Your task to perform on an android device: check out phone information Image 0: 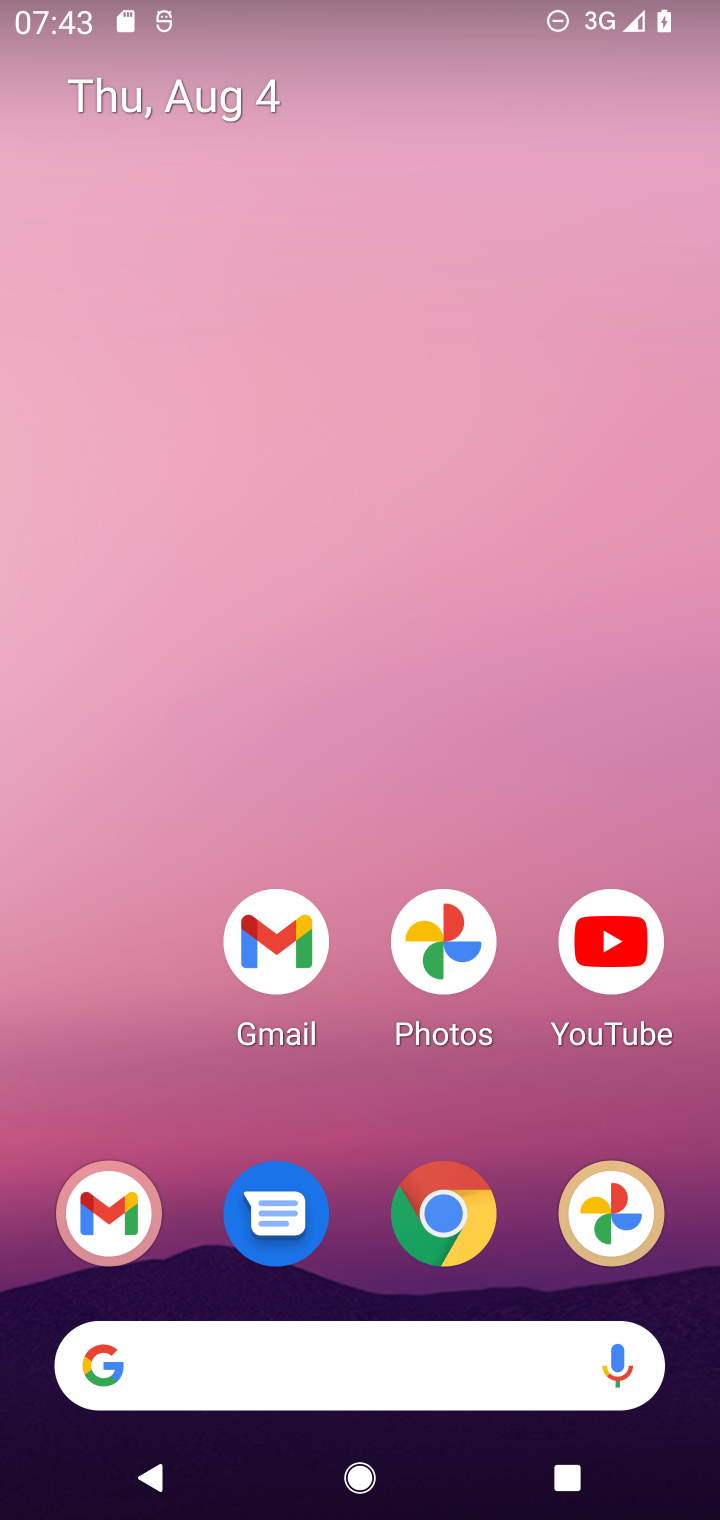
Step 0: press home button
Your task to perform on an android device: check out phone information Image 1: 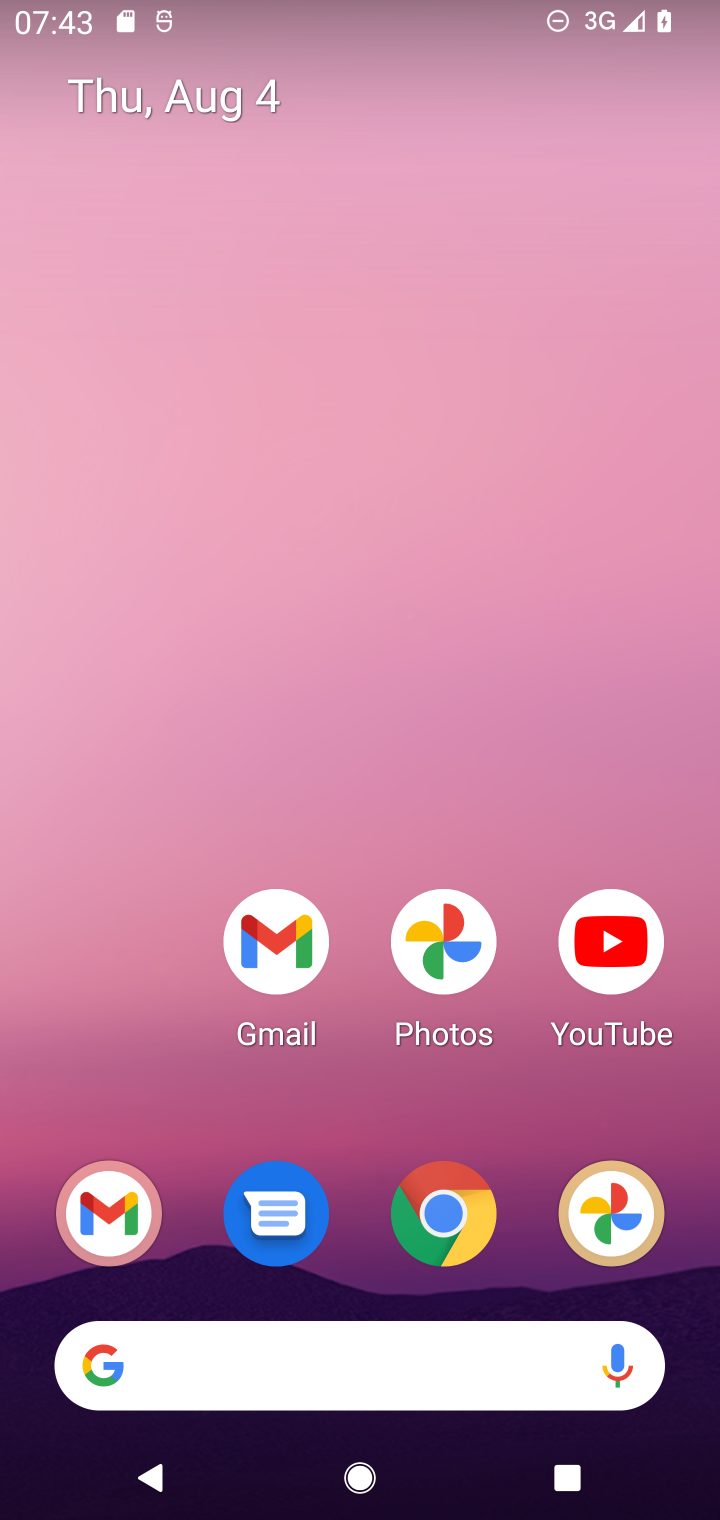
Step 1: drag from (174, 1113) to (162, 253)
Your task to perform on an android device: check out phone information Image 2: 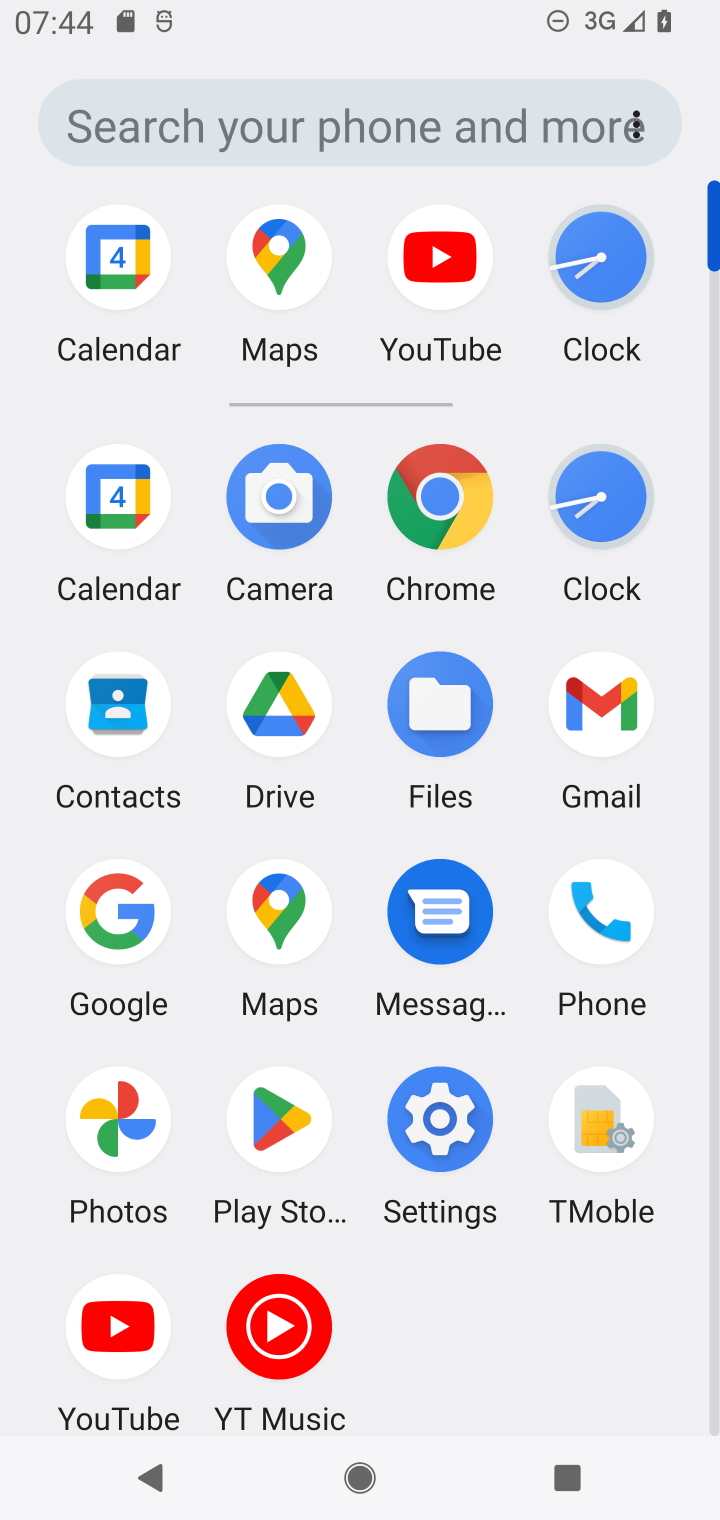
Step 2: click (615, 927)
Your task to perform on an android device: check out phone information Image 3: 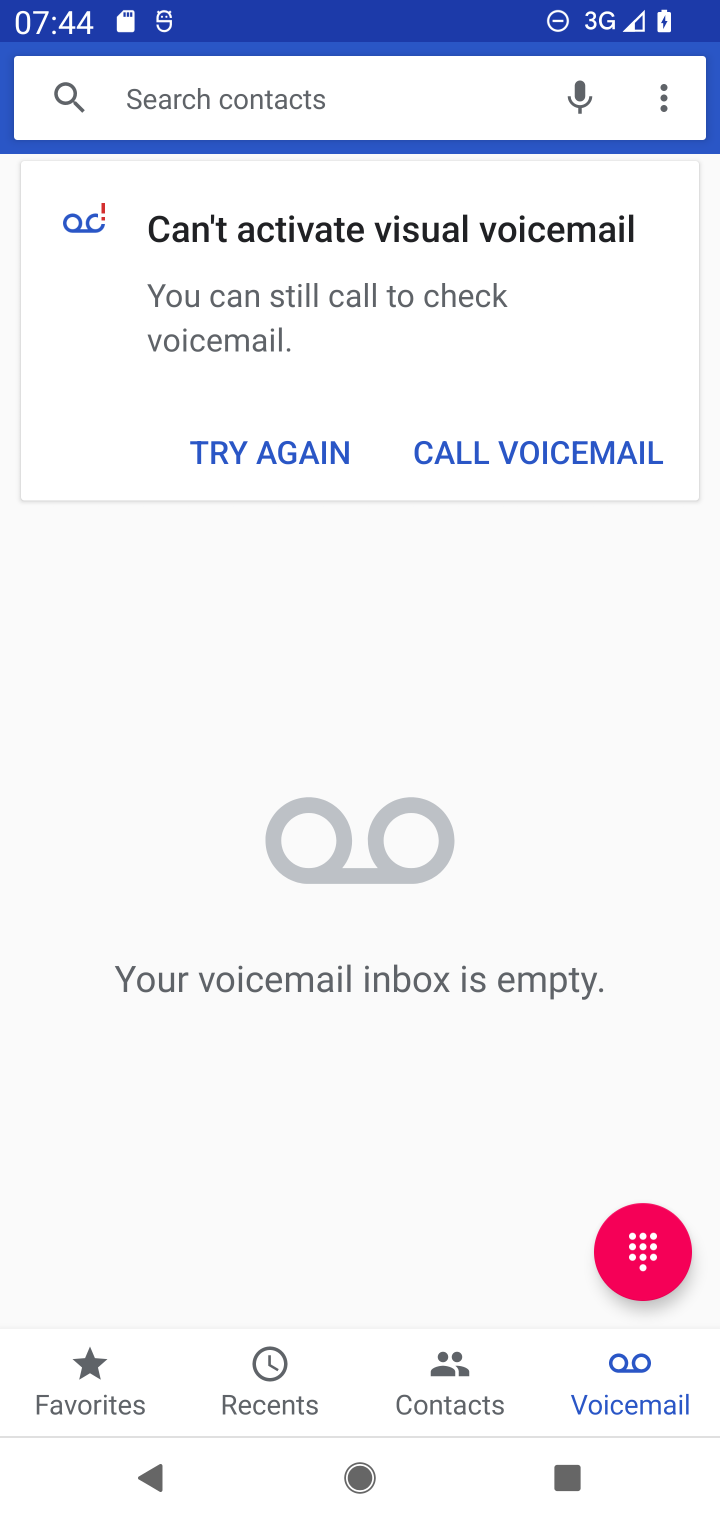
Step 3: task complete